Your task to perform on an android device: install app "Duolingo: language lessons" Image 0: 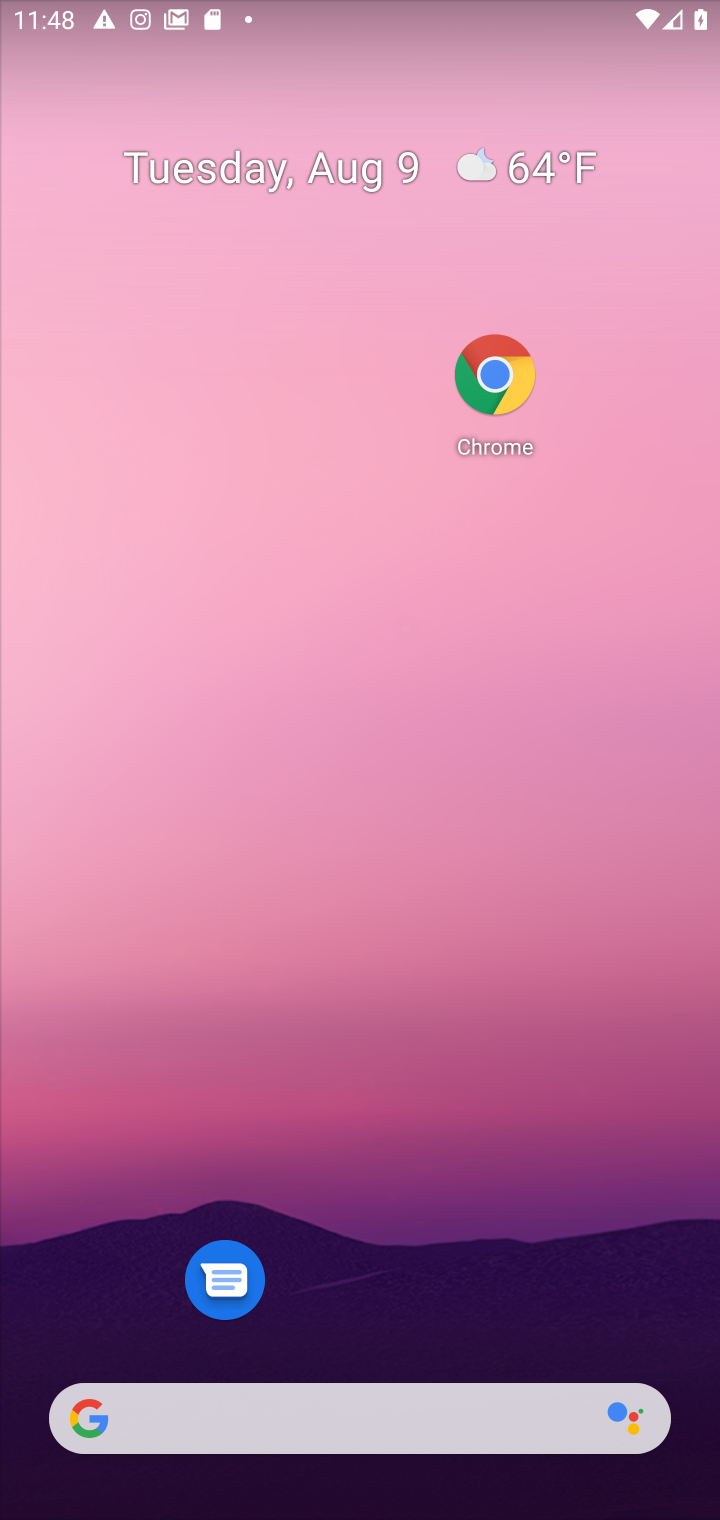
Step 0: drag from (301, 1323) to (358, 22)
Your task to perform on an android device: install app "Duolingo: language lessons" Image 1: 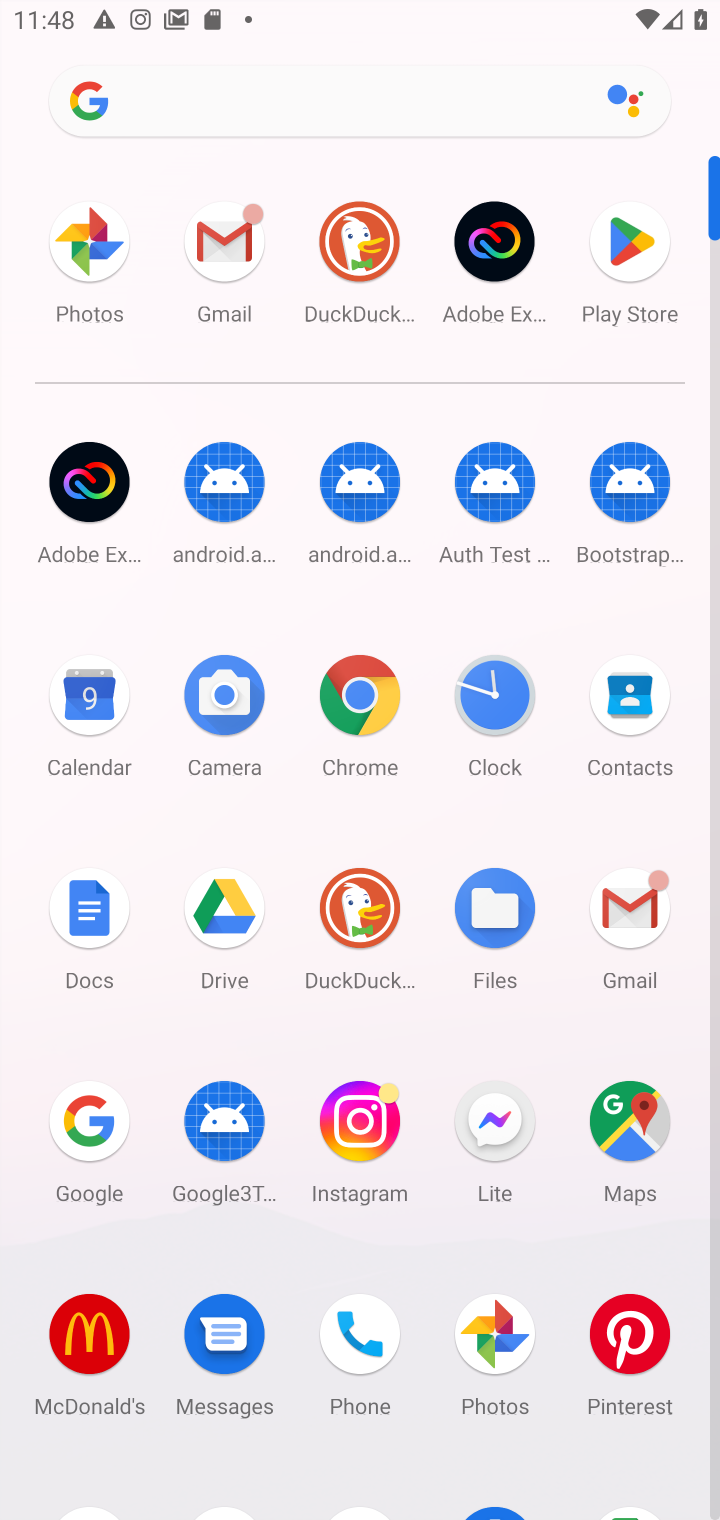
Step 1: click (612, 246)
Your task to perform on an android device: install app "Duolingo: language lessons" Image 2: 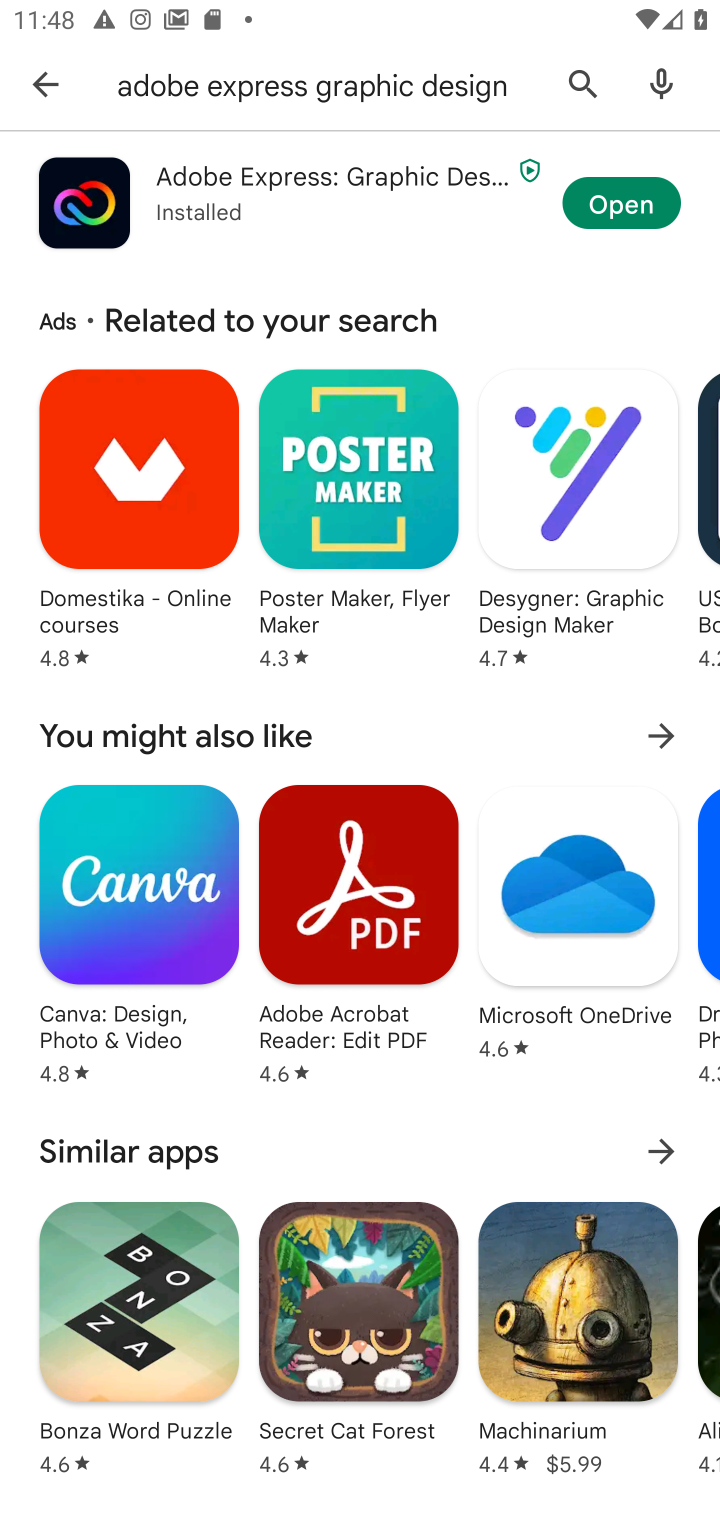
Step 2: click (39, 96)
Your task to perform on an android device: install app "Duolingo: language lessons" Image 3: 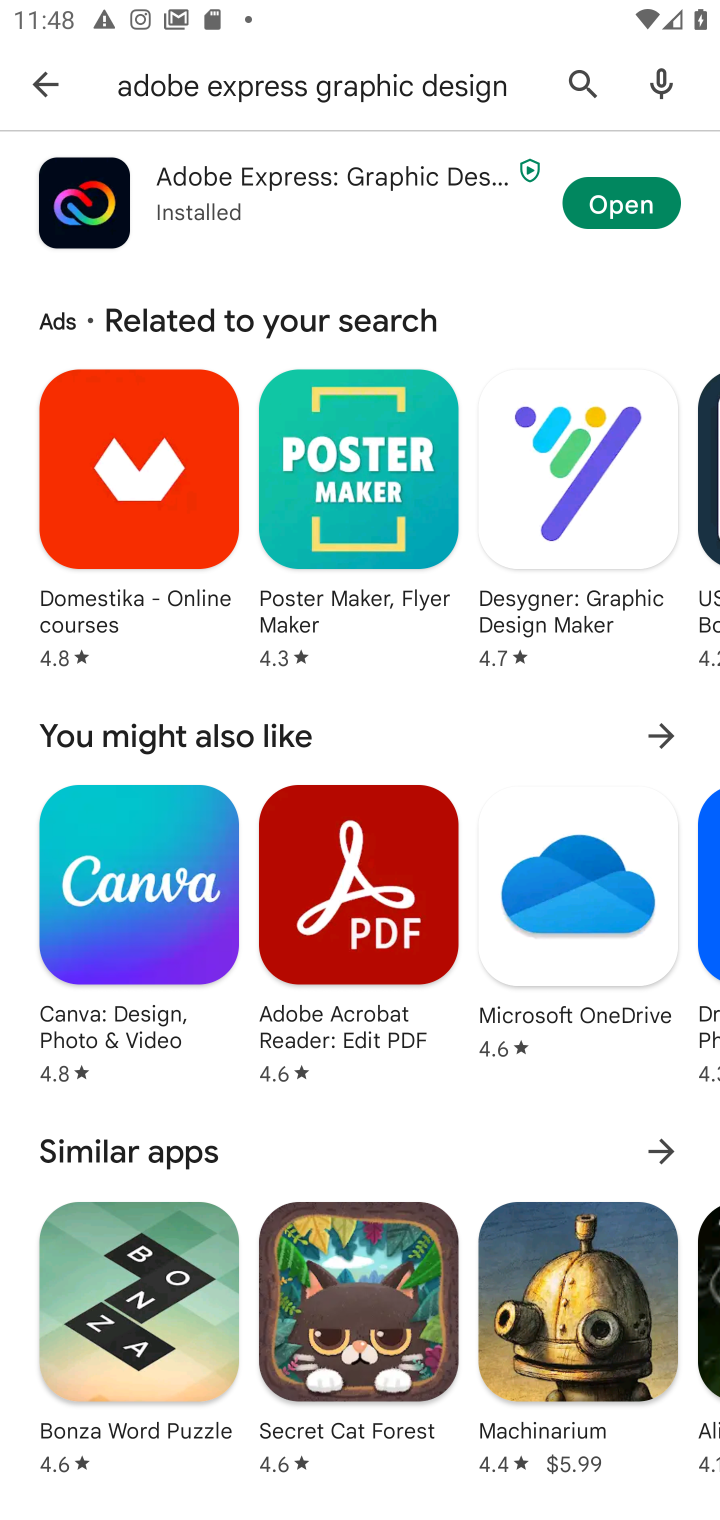
Step 3: click (561, 83)
Your task to perform on an android device: install app "Duolingo: language lessons" Image 4: 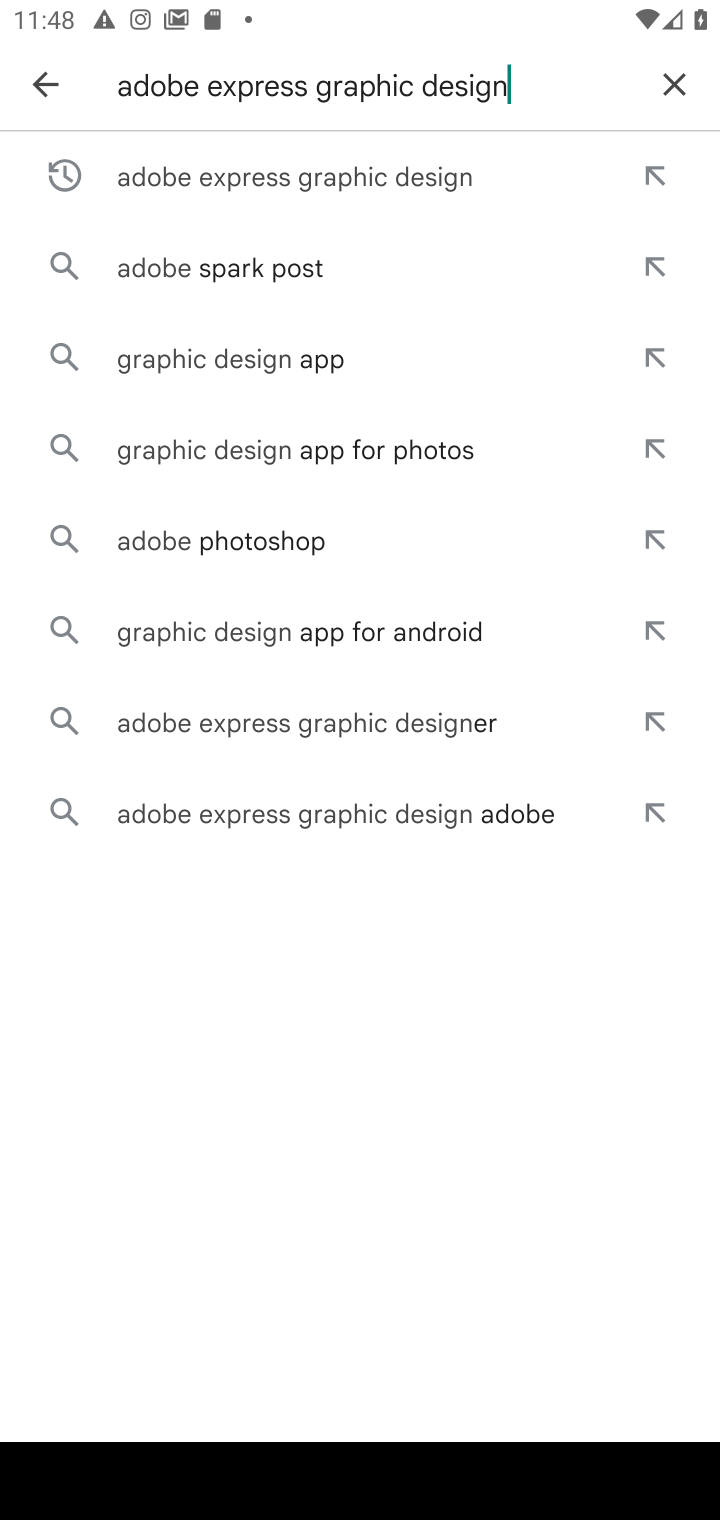
Step 4: click (666, 77)
Your task to perform on an android device: install app "Duolingo: language lessons" Image 5: 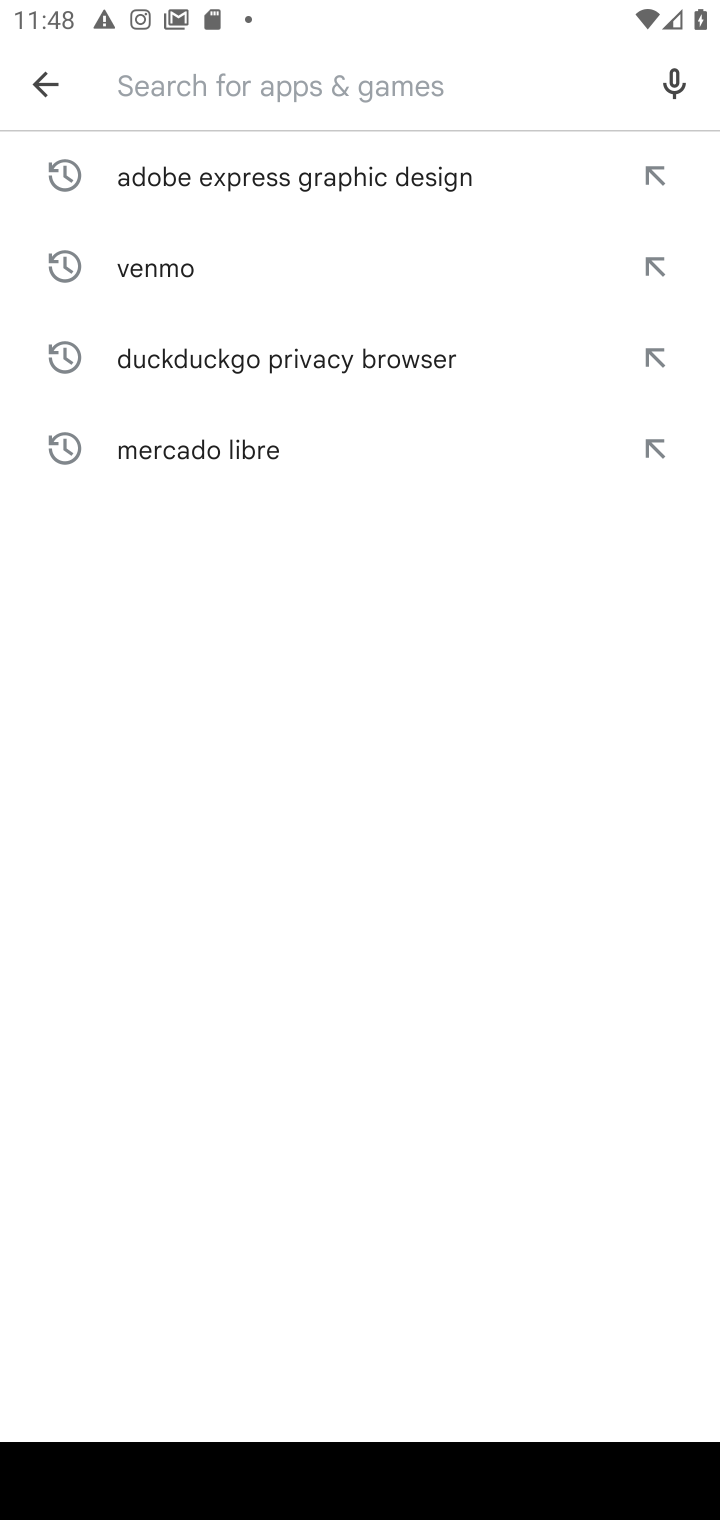
Step 5: type "Duolingo: language lessons"
Your task to perform on an android device: install app "Duolingo: language lessons" Image 6: 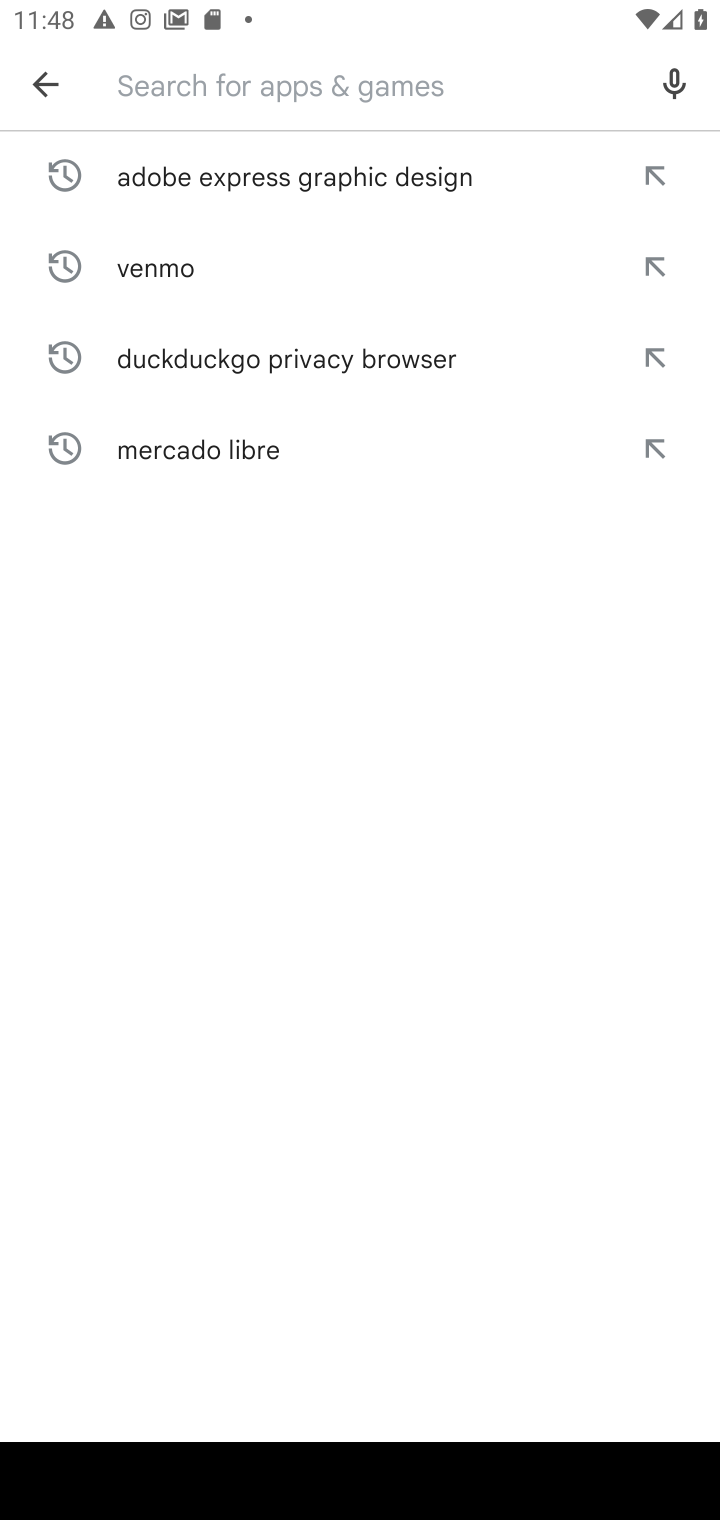
Step 6: click (192, 86)
Your task to perform on an android device: install app "Duolingo: language lessons" Image 7: 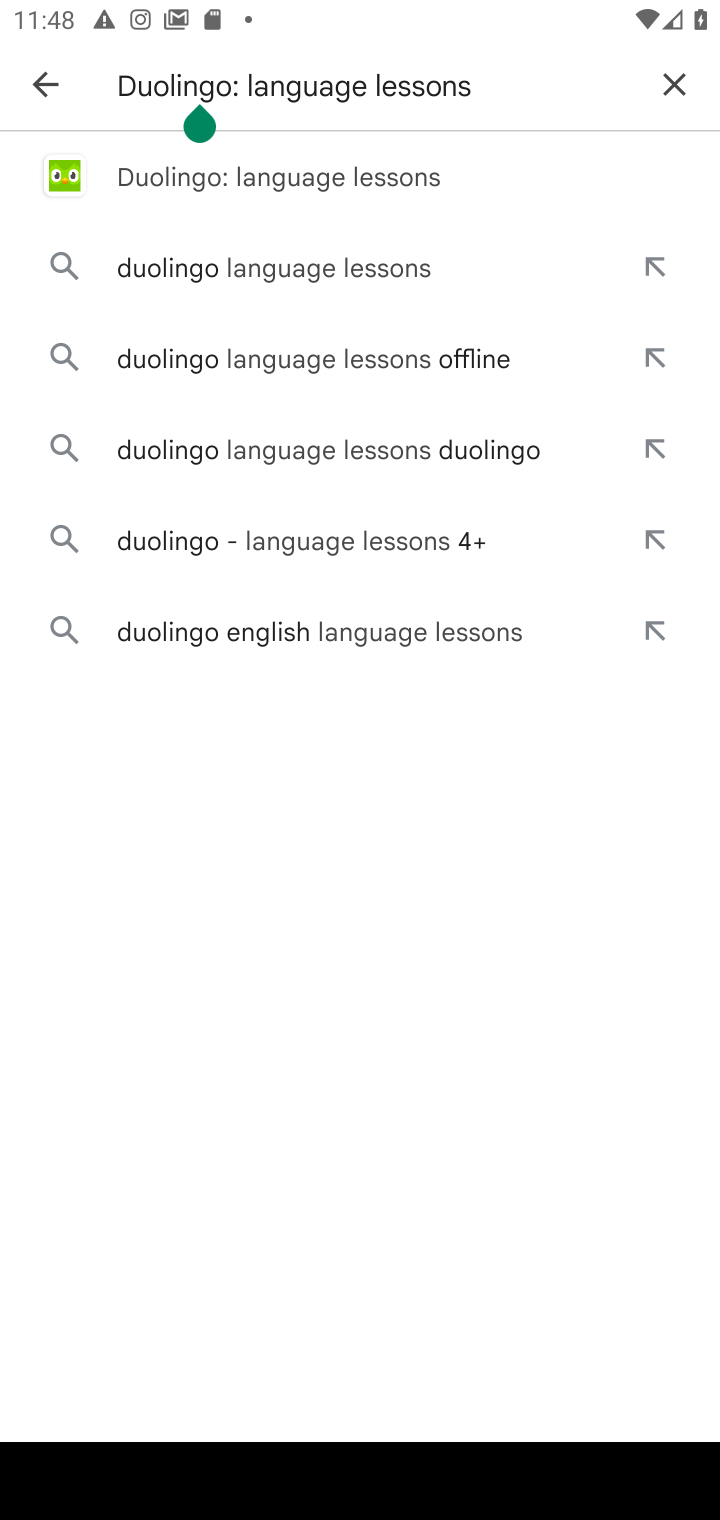
Step 7: click (188, 175)
Your task to perform on an android device: install app "Duolingo: language lessons" Image 8: 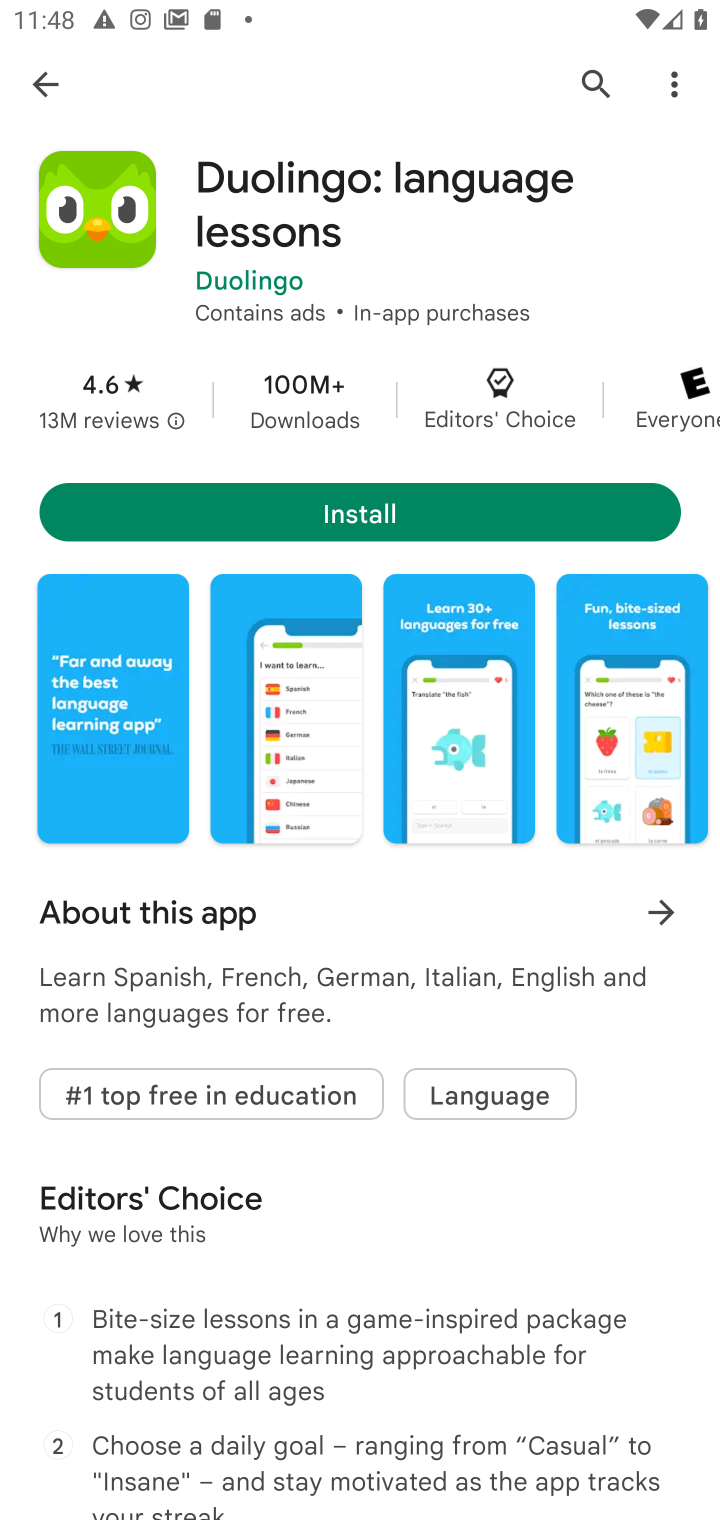
Step 8: click (407, 510)
Your task to perform on an android device: install app "Duolingo: language lessons" Image 9: 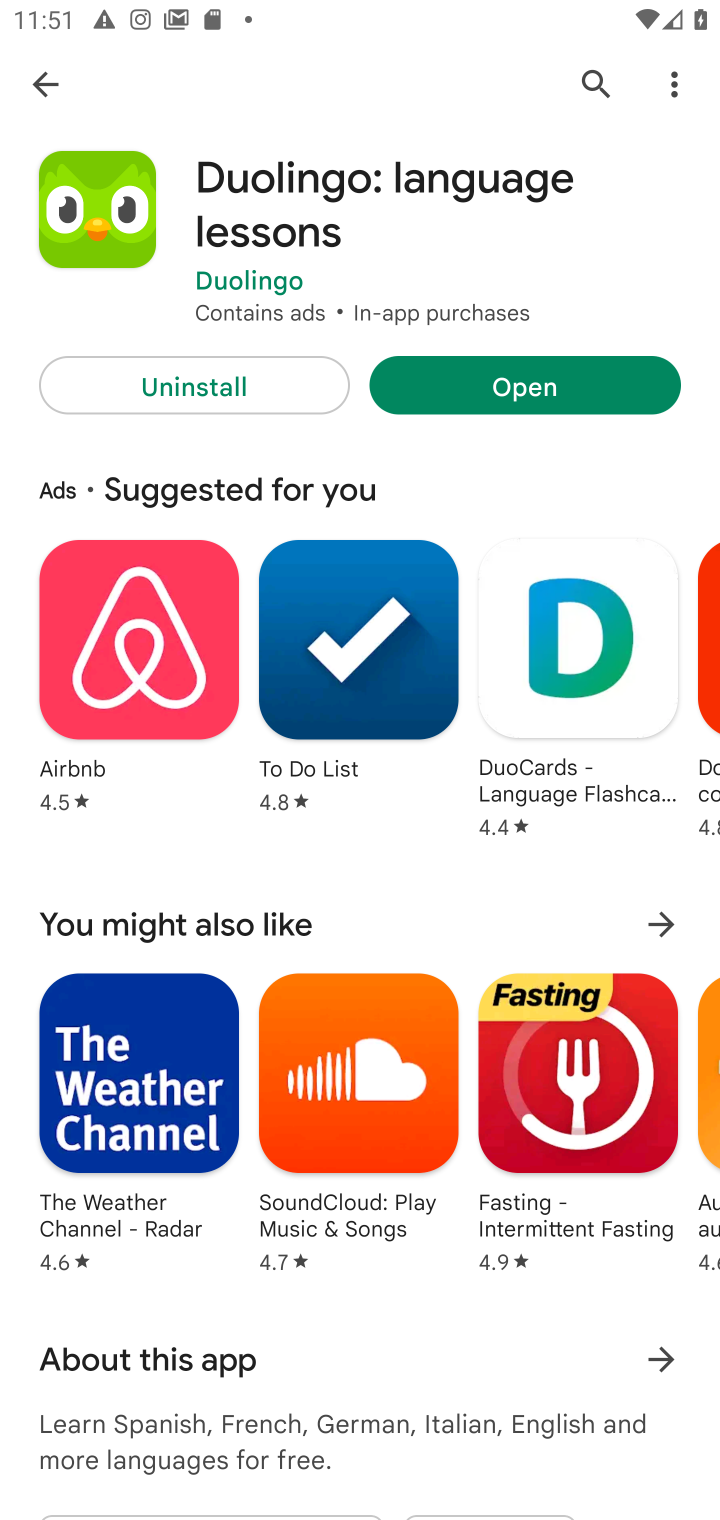
Step 9: click (576, 383)
Your task to perform on an android device: install app "Duolingo: language lessons" Image 10: 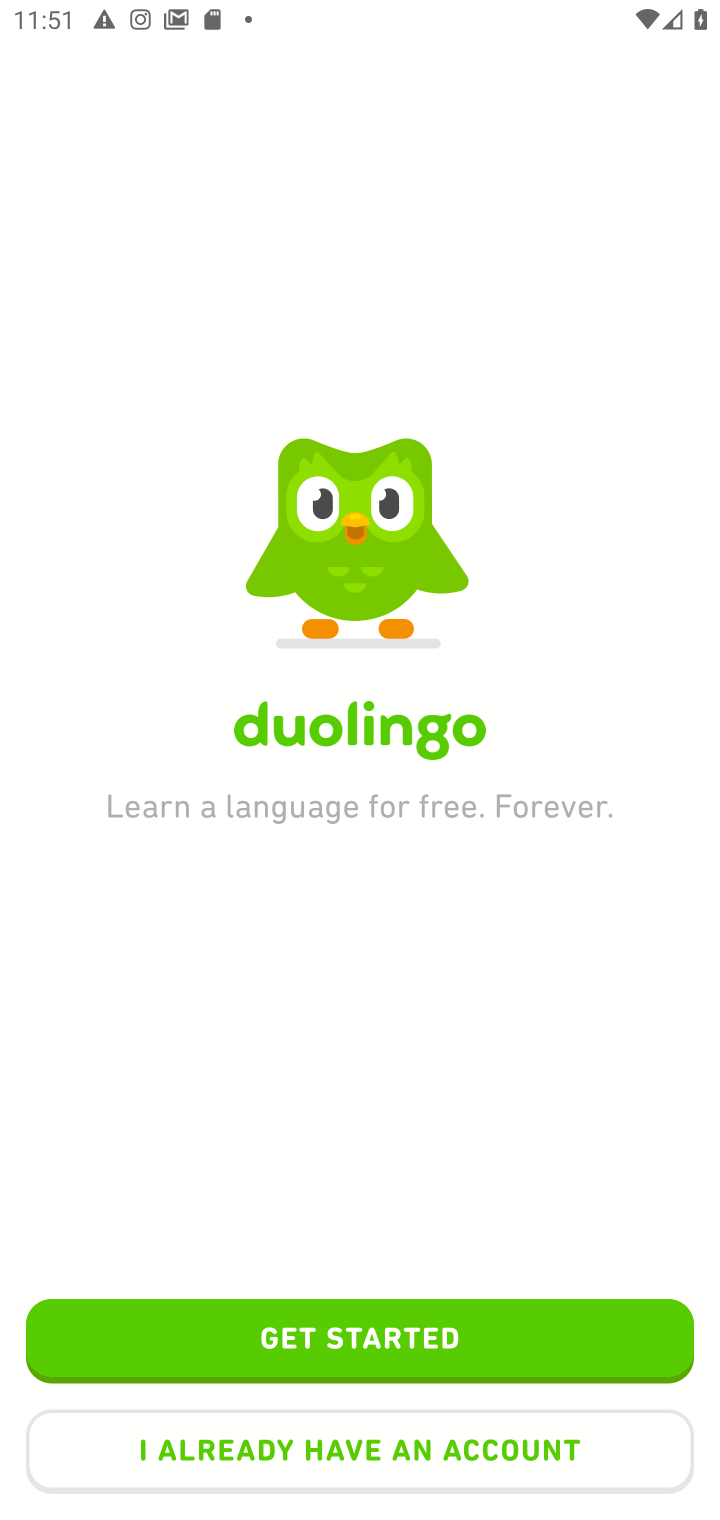
Step 10: click (331, 1337)
Your task to perform on an android device: install app "Duolingo: language lessons" Image 11: 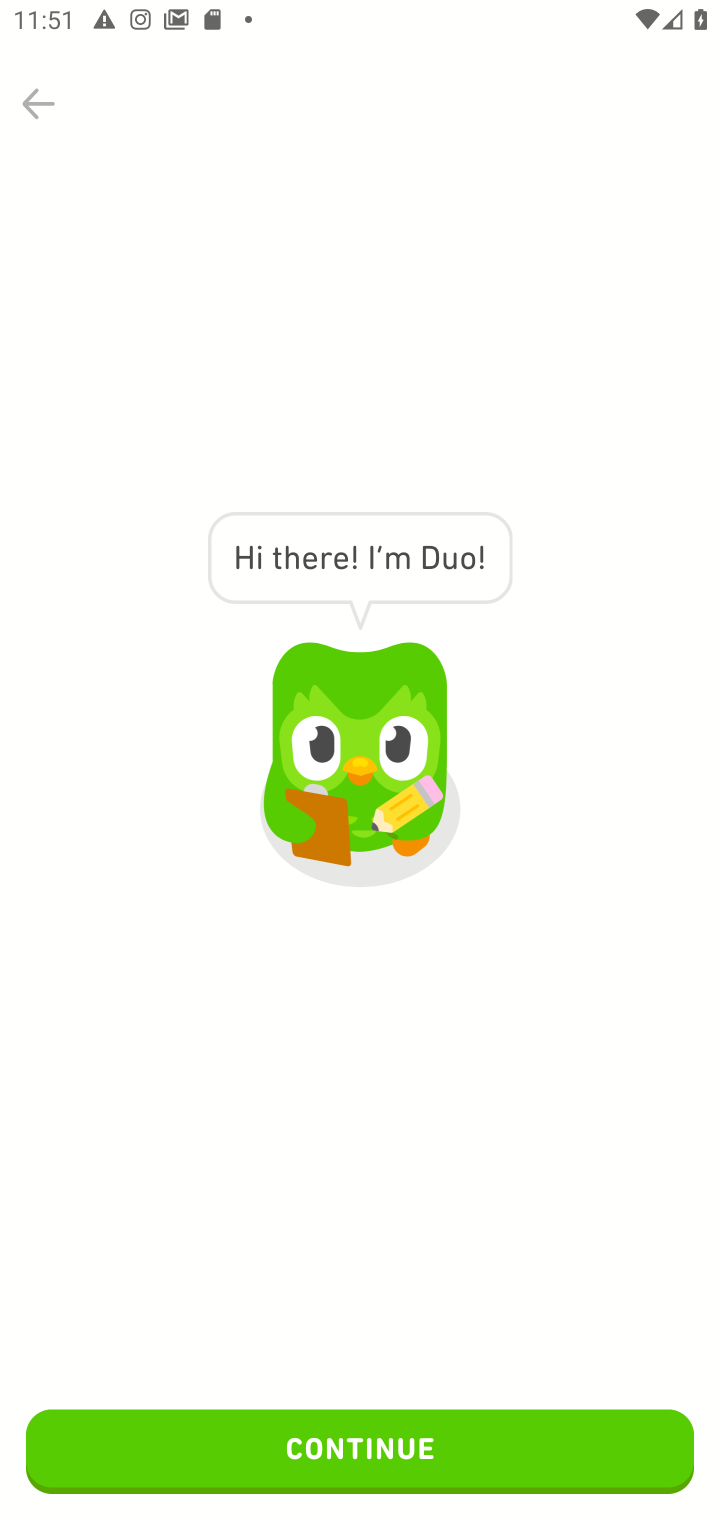
Step 11: click (387, 1456)
Your task to perform on an android device: install app "Duolingo: language lessons" Image 12: 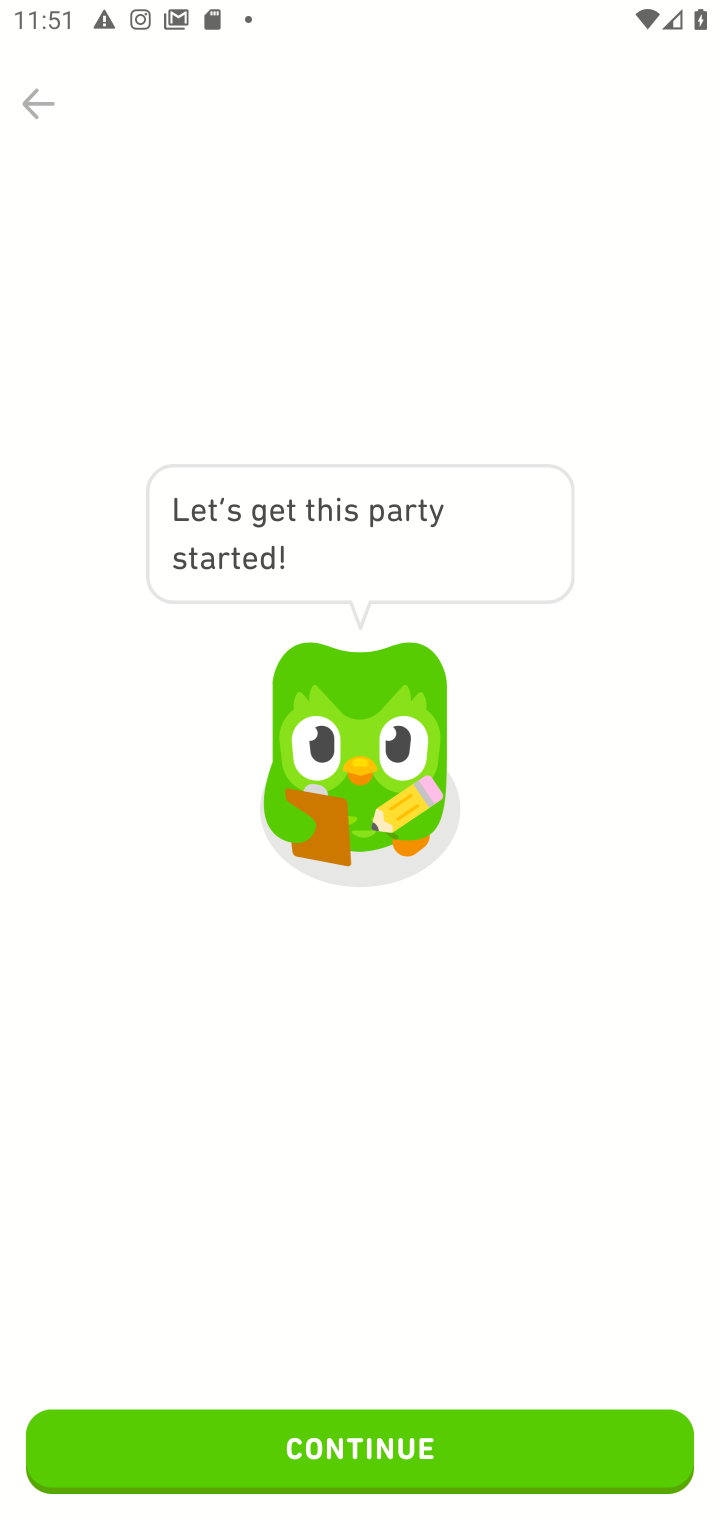
Step 12: click (425, 1455)
Your task to perform on an android device: install app "Duolingo: language lessons" Image 13: 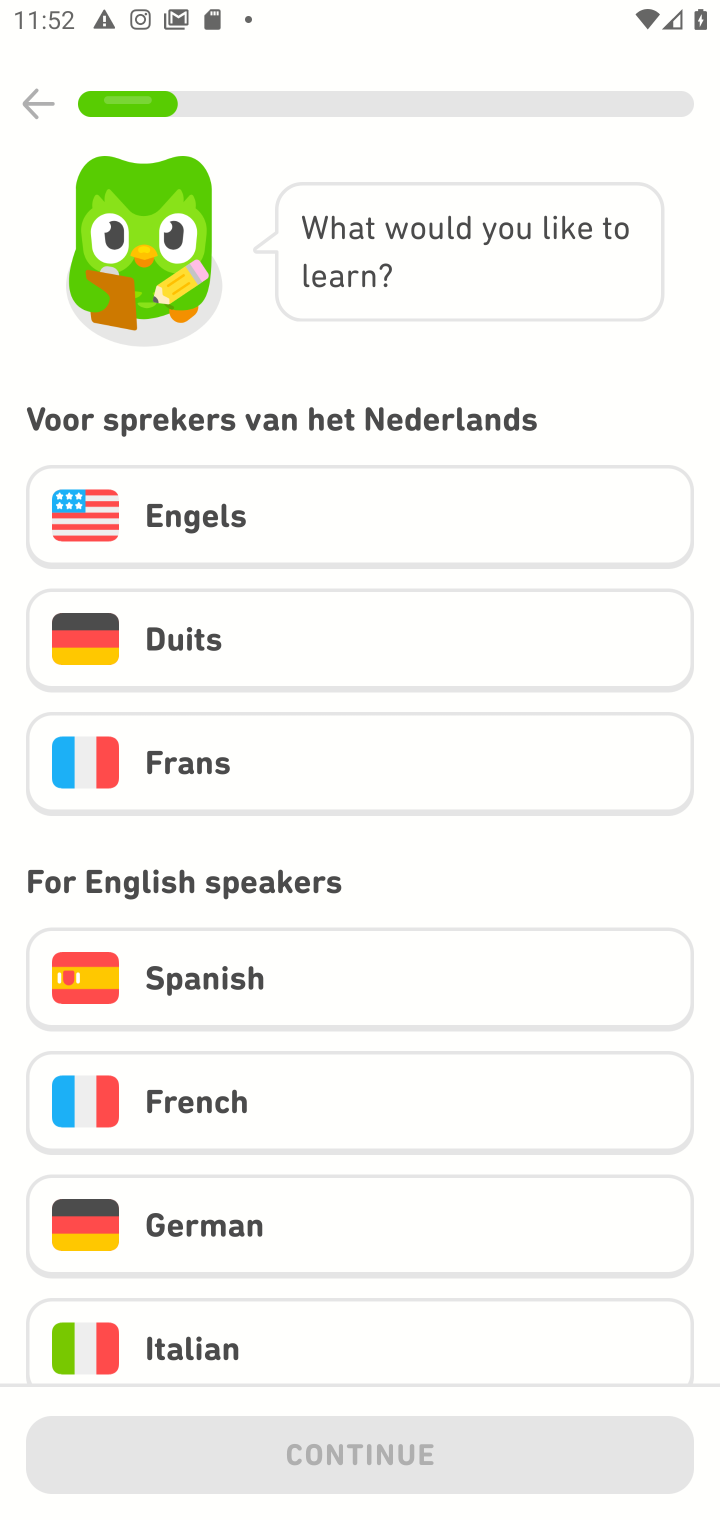
Step 13: drag from (318, 1128) to (303, 215)
Your task to perform on an android device: install app "Duolingo: language lessons" Image 14: 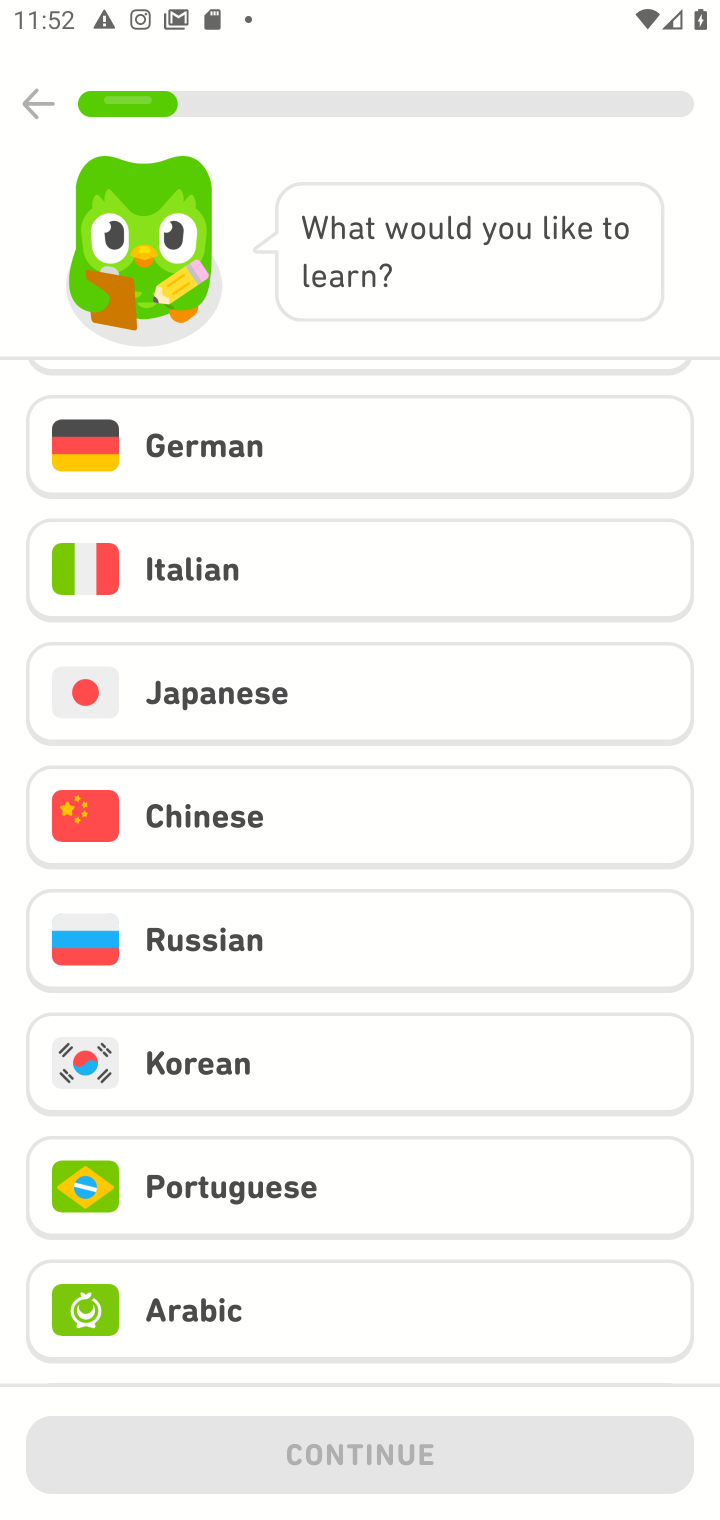
Step 14: drag from (364, 1187) to (274, 130)
Your task to perform on an android device: install app "Duolingo: language lessons" Image 15: 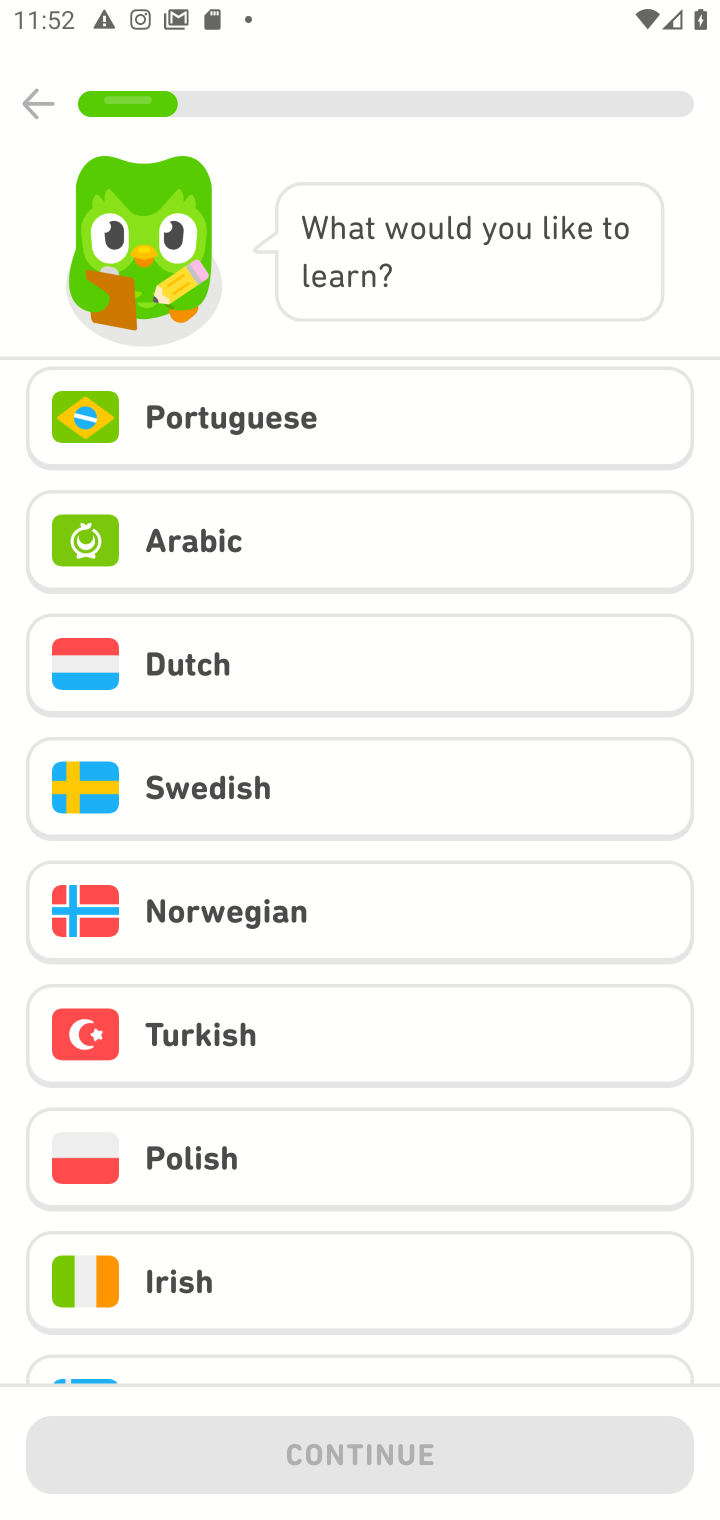
Step 15: drag from (323, 1249) to (340, 332)
Your task to perform on an android device: install app "Duolingo: language lessons" Image 16: 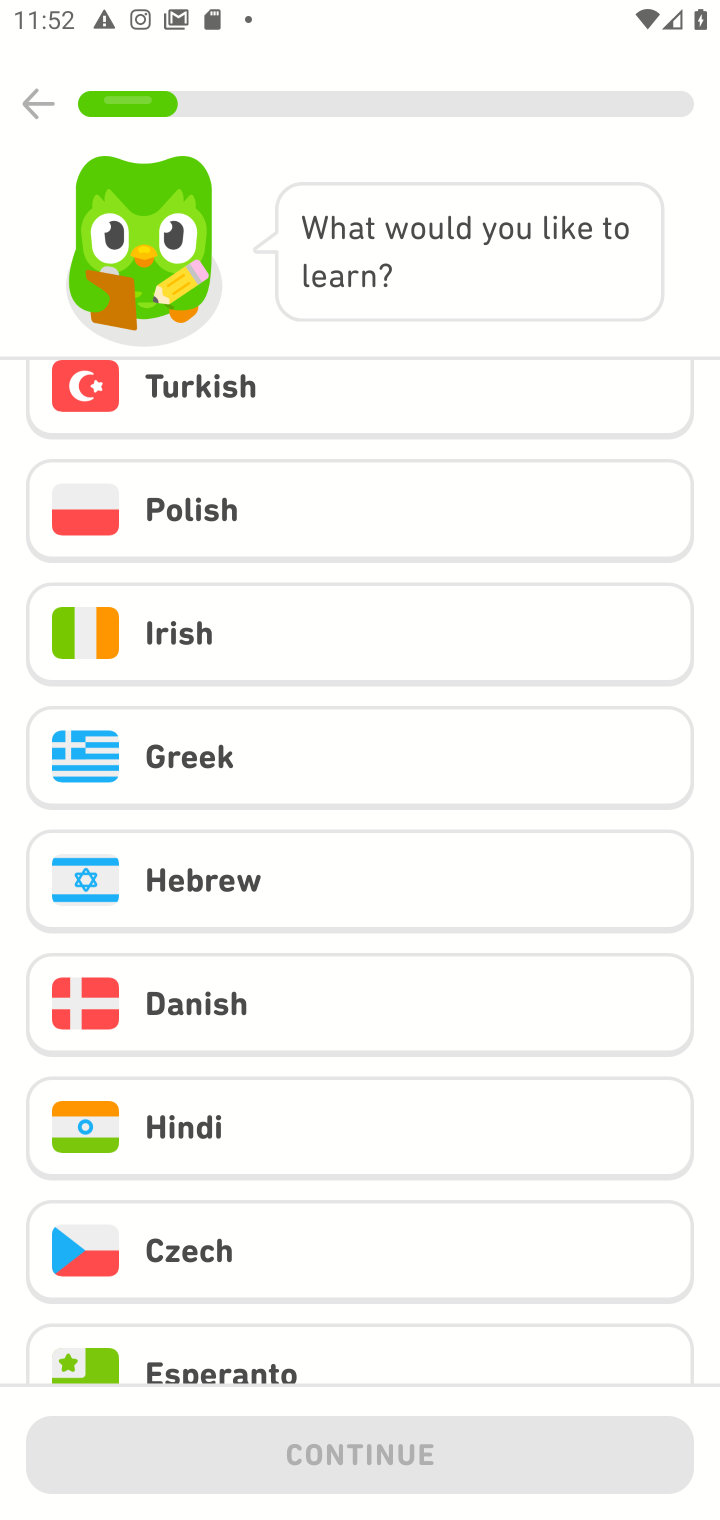
Step 16: drag from (358, 1220) to (303, 388)
Your task to perform on an android device: install app "Duolingo: language lessons" Image 17: 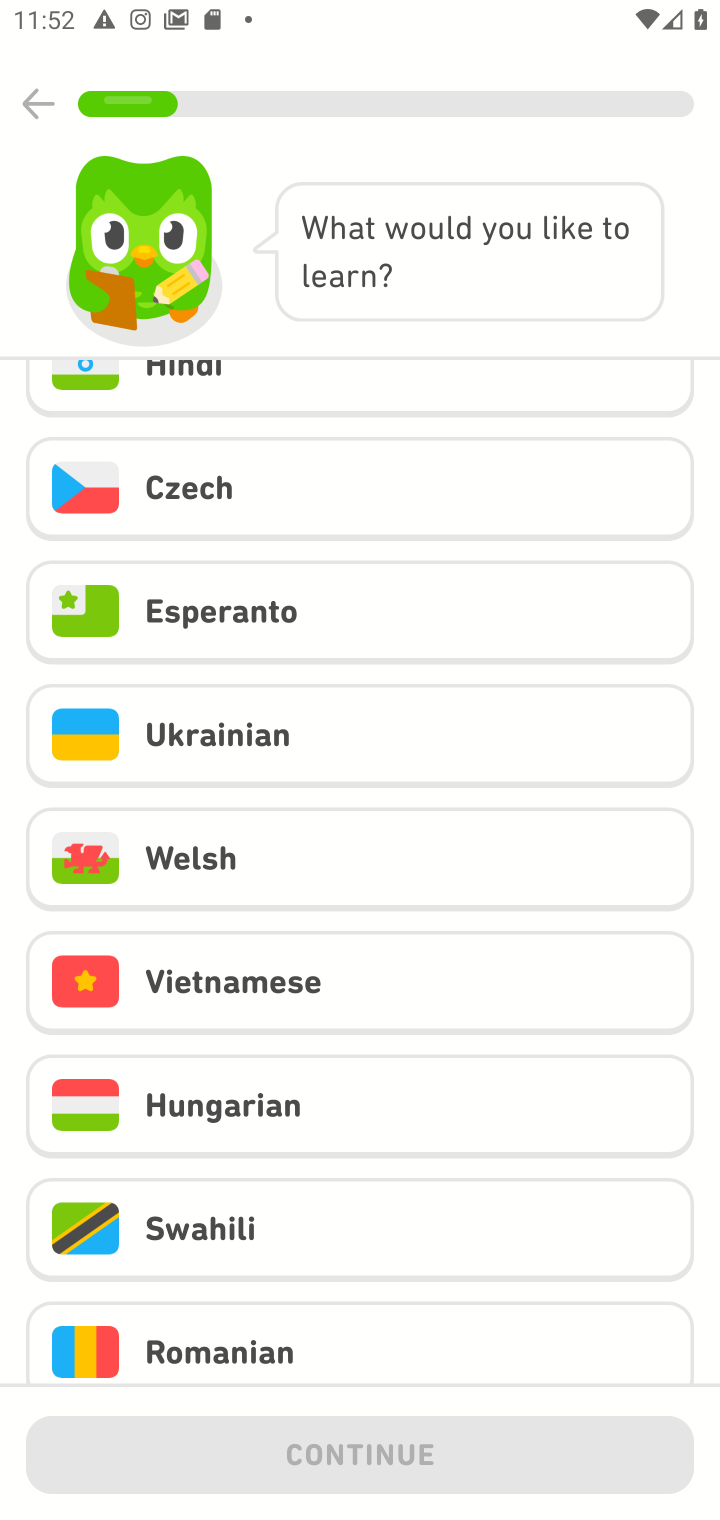
Step 17: drag from (224, 1244) to (196, 325)
Your task to perform on an android device: install app "Duolingo: language lessons" Image 18: 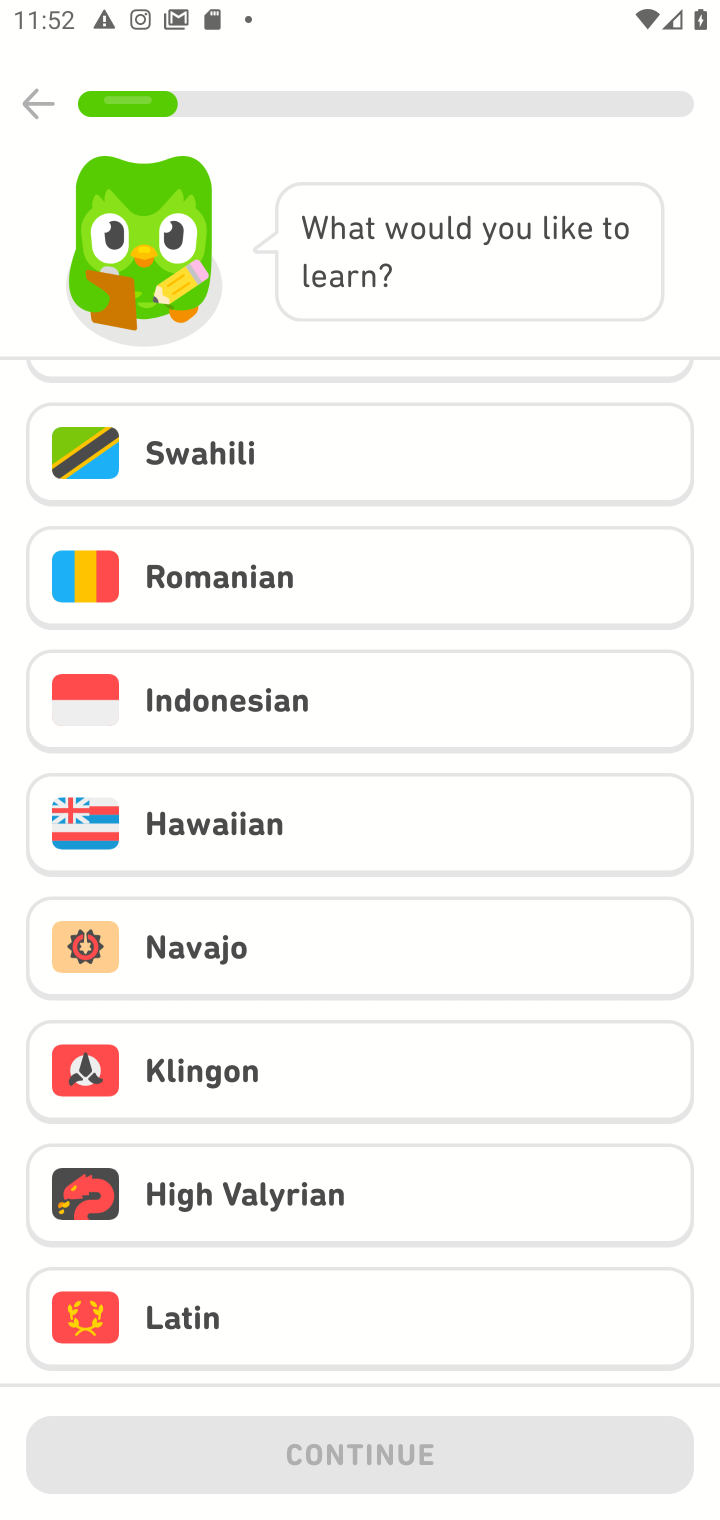
Step 18: drag from (294, 1254) to (266, 349)
Your task to perform on an android device: install app "Duolingo: language lessons" Image 19: 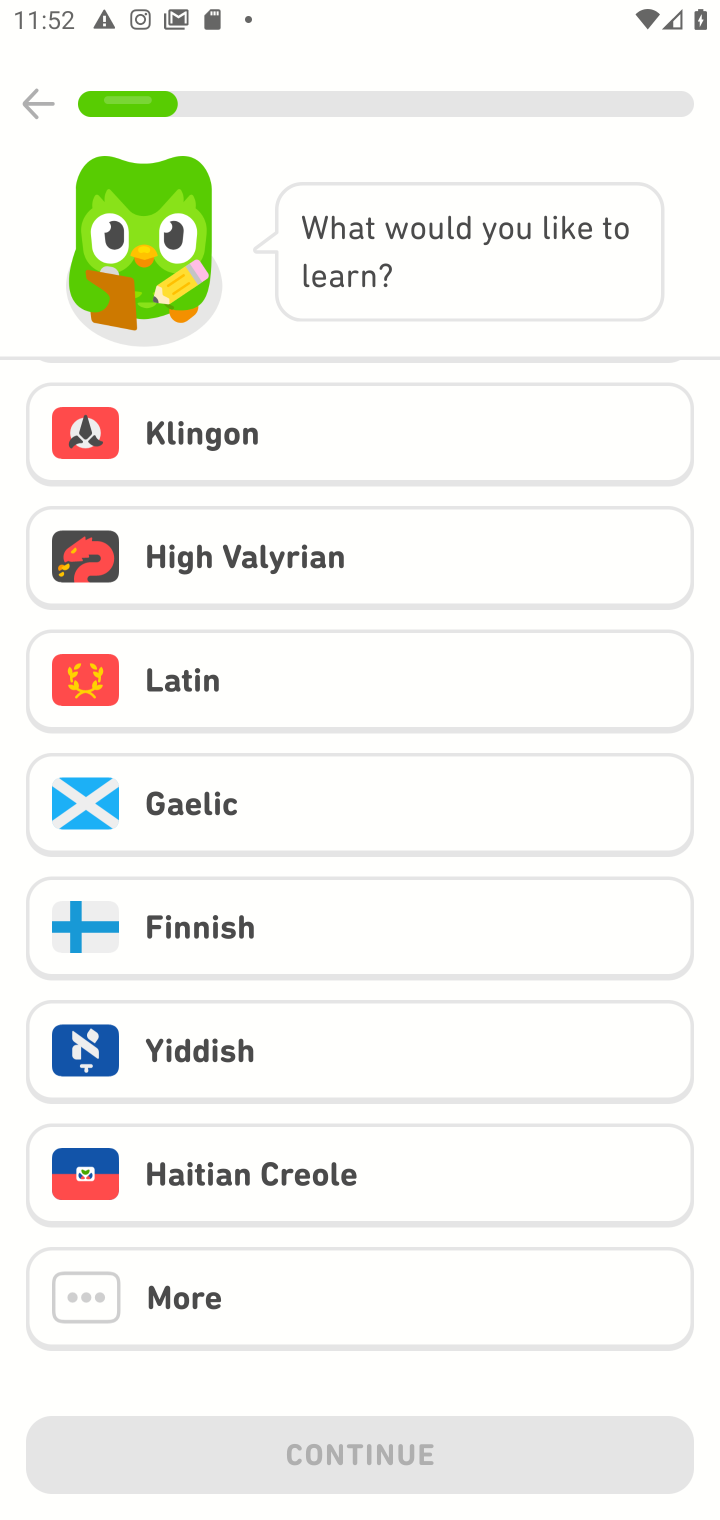
Step 19: click (44, 113)
Your task to perform on an android device: install app "Duolingo: language lessons" Image 20: 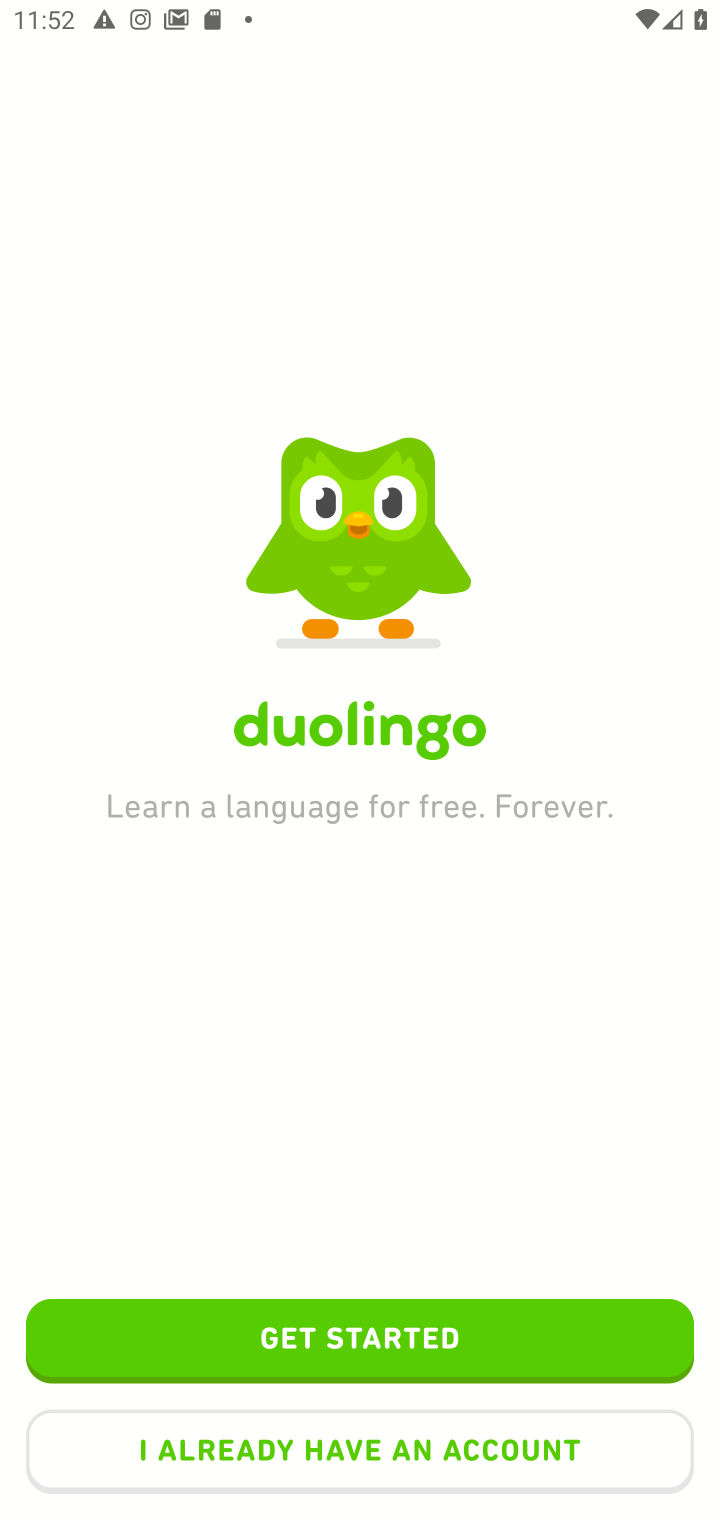
Step 20: click (360, 1441)
Your task to perform on an android device: install app "Duolingo: language lessons" Image 21: 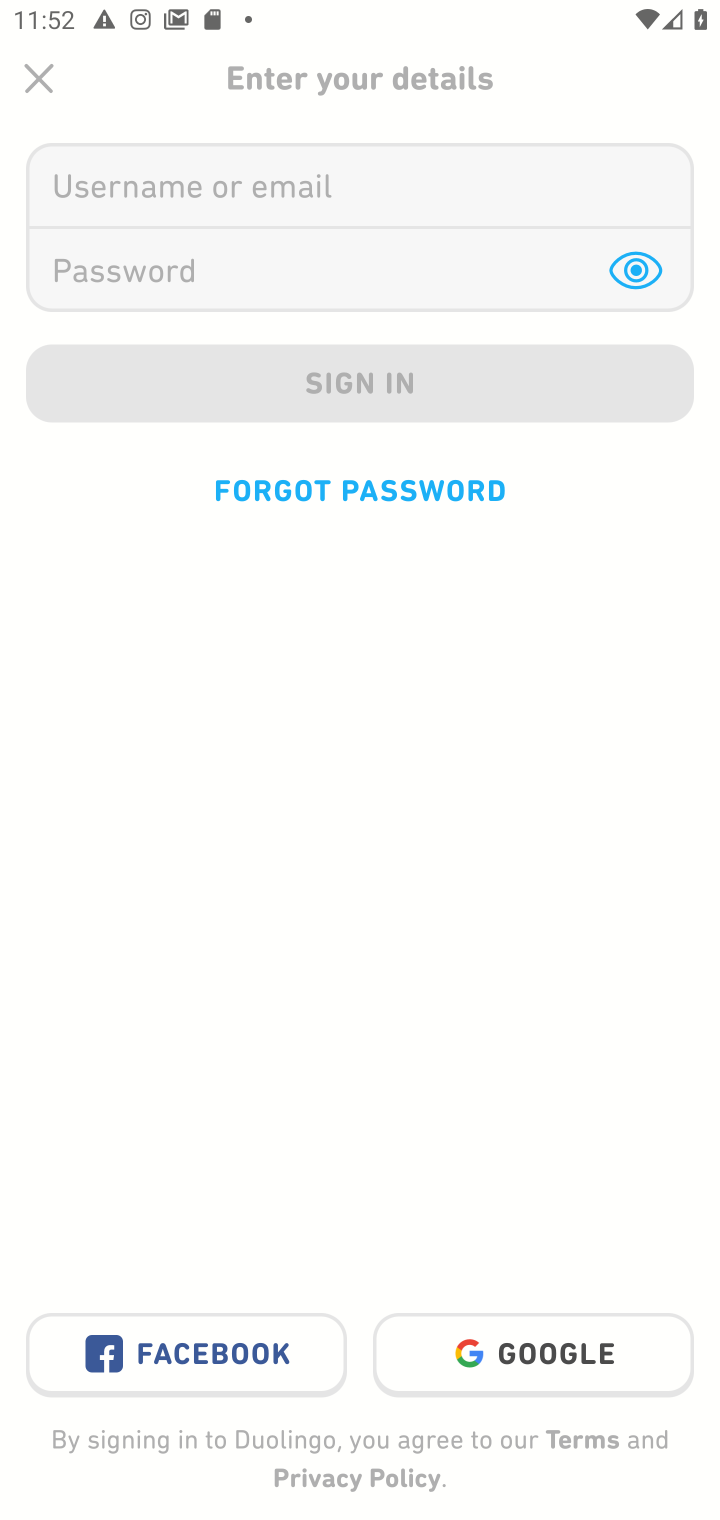
Step 21: task complete